Your task to perform on an android device: Go to sound settings Image 0: 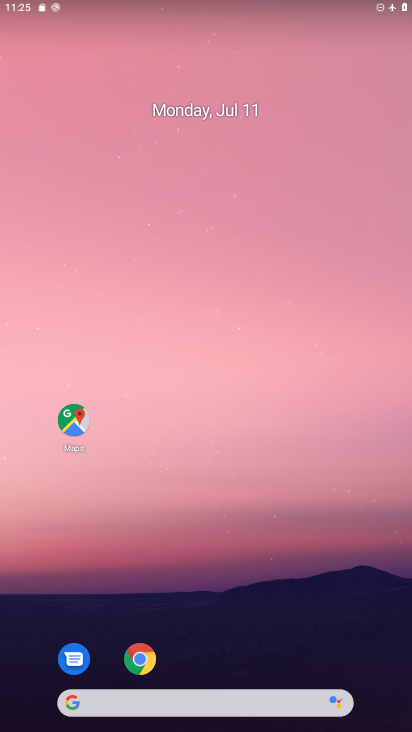
Step 0: drag from (296, 415) to (238, 112)
Your task to perform on an android device: Go to sound settings Image 1: 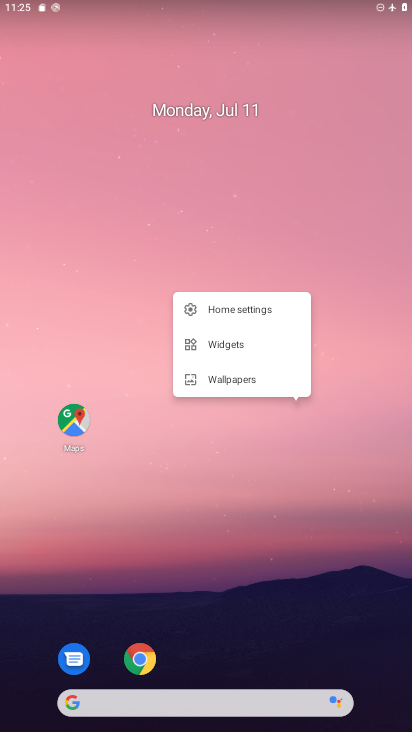
Step 1: drag from (391, 645) to (306, 83)
Your task to perform on an android device: Go to sound settings Image 2: 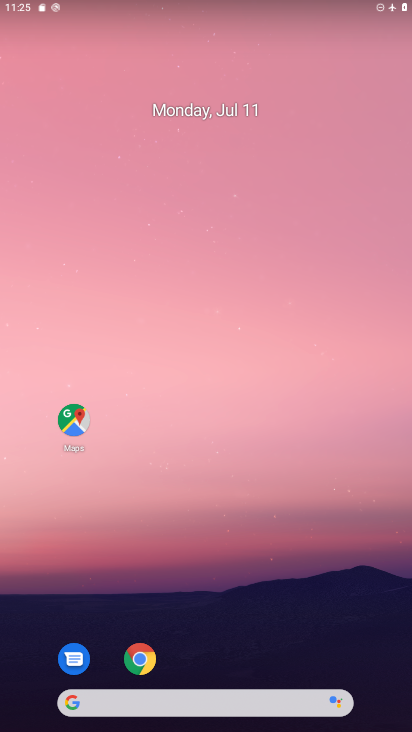
Step 2: drag from (279, 288) to (203, 13)
Your task to perform on an android device: Go to sound settings Image 3: 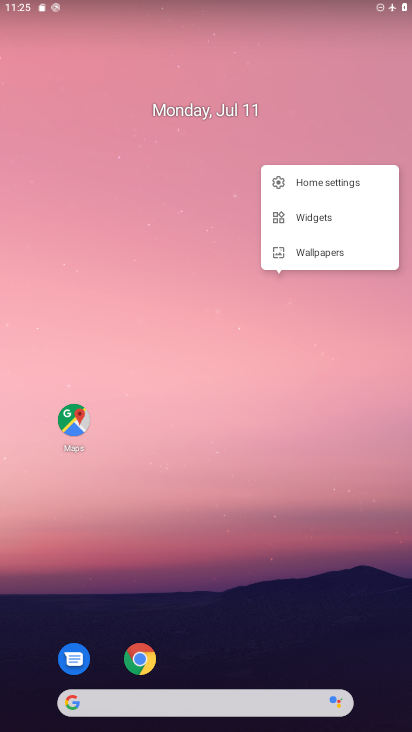
Step 3: drag from (375, 647) to (192, 14)
Your task to perform on an android device: Go to sound settings Image 4: 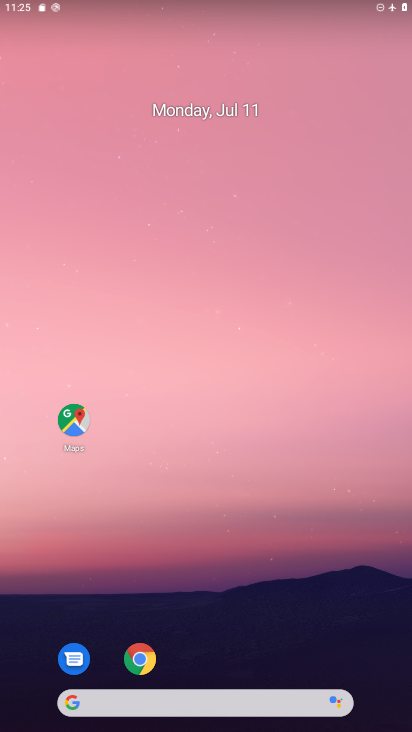
Step 4: drag from (380, 653) to (247, 60)
Your task to perform on an android device: Go to sound settings Image 5: 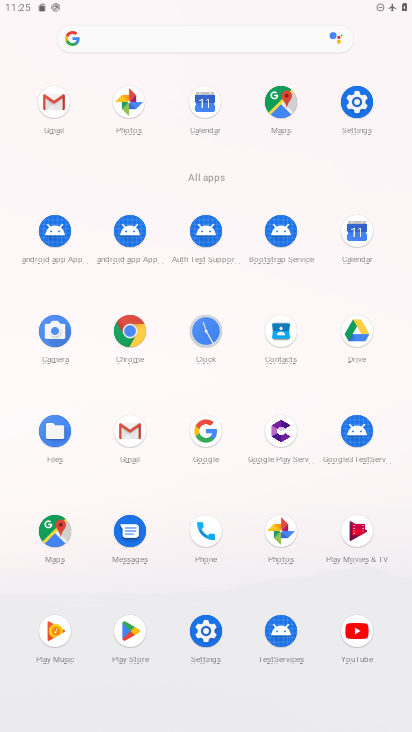
Step 5: click (365, 105)
Your task to perform on an android device: Go to sound settings Image 6: 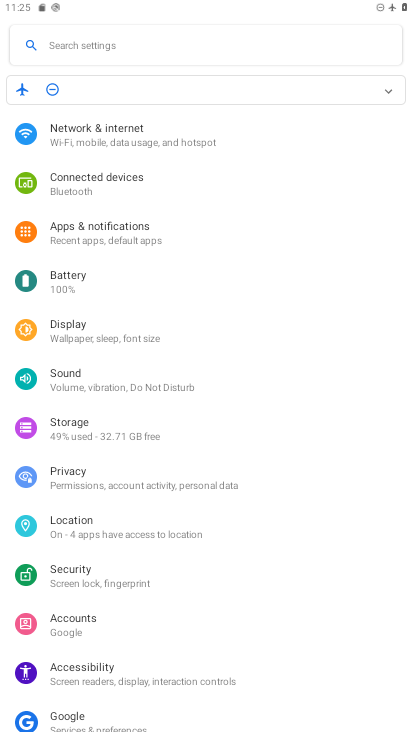
Step 6: click (216, 386)
Your task to perform on an android device: Go to sound settings Image 7: 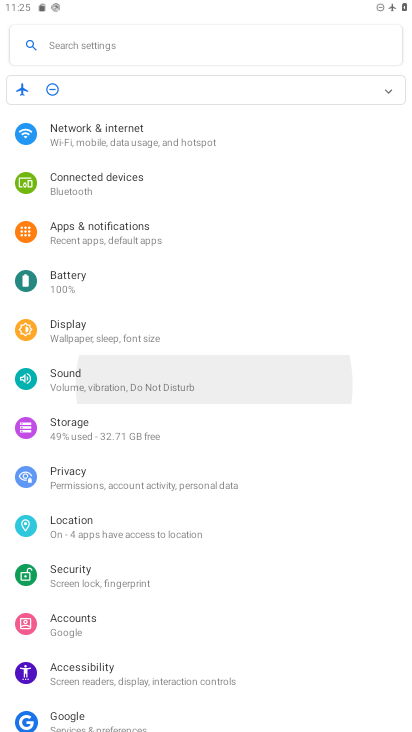
Step 7: click (160, 381)
Your task to perform on an android device: Go to sound settings Image 8: 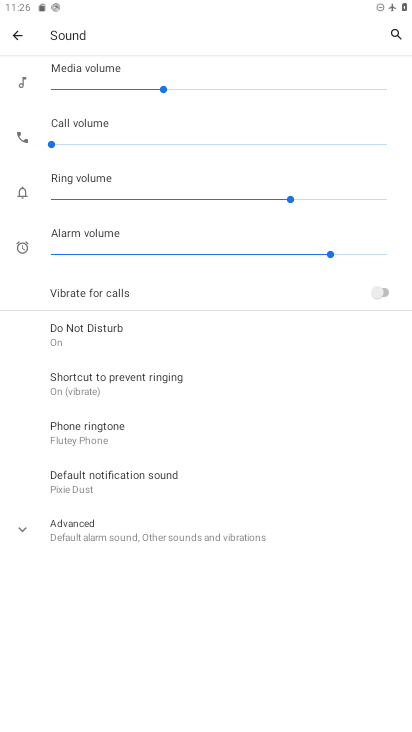
Step 8: task complete